Your task to perform on an android device: Show me the alarms in the clock app Image 0: 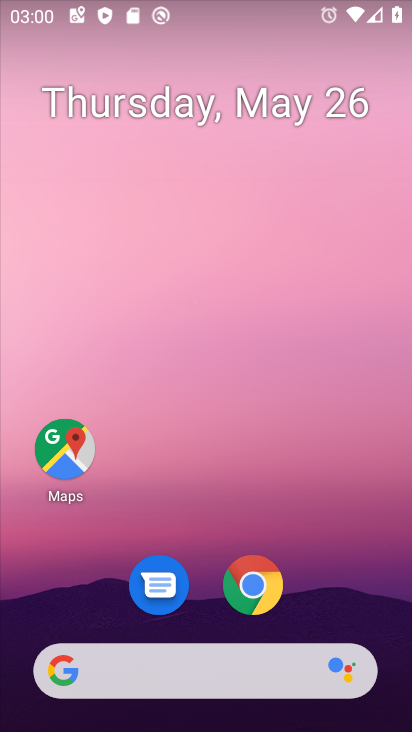
Step 0: drag from (258, 517) to (239, 45)
Your task to perform on an android device: Show me the alarms in the clock app Image 1: 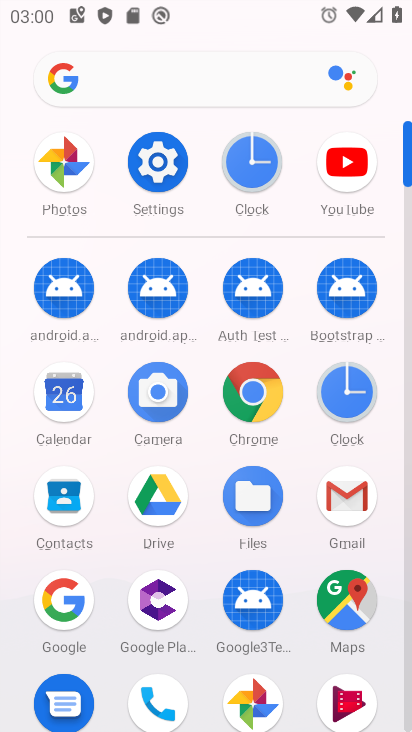
Step 1: click (259, 168)
Your task to perform on an android device: Show me the alarms in the clock app Image 2: 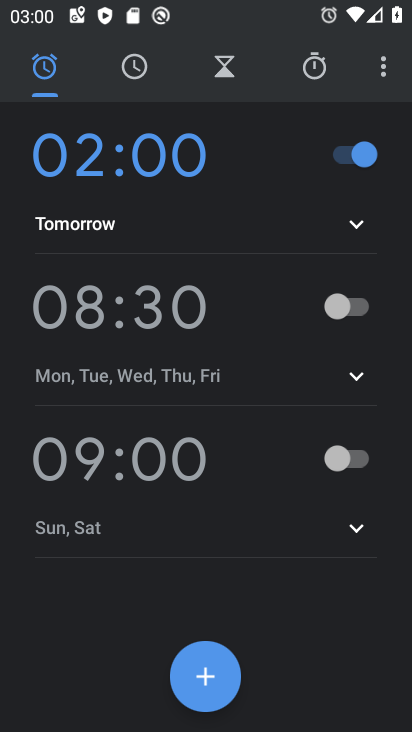
Step 2: task complete